Your task to perform on an android device: add a contact in the contacts app Image 0: 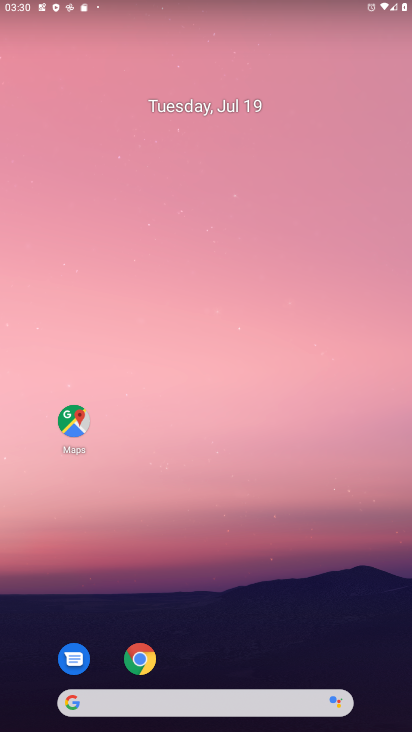
Step 0: press home button
Your task to perform on an android device: add a contact in the contacts app Image 1: 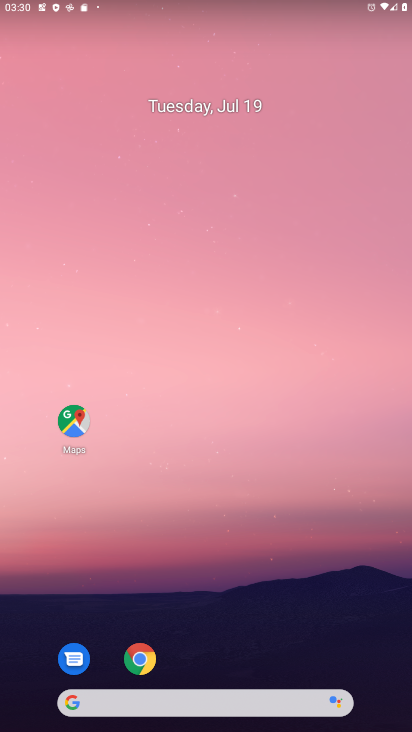
Step 1: drag from (278, 658) to (277, 78)
Your task to perform on an android device: add a contact in the contacts app Image 2: 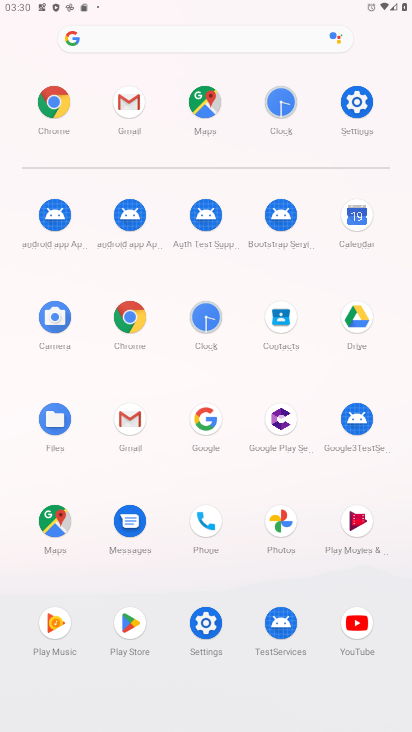
Step 2: click (276, 336)
Your task to perform on an android device: add a contact in the contacts app Image 3: 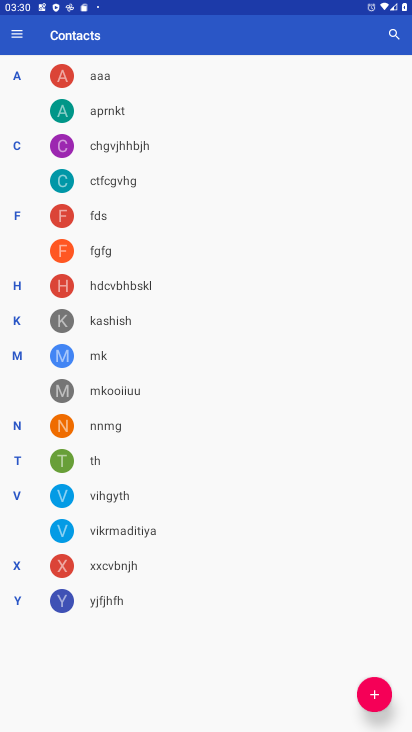
Step 3: click (368, 689)
Your task to perform on an android device: add a contact in the contacts app Image 4: 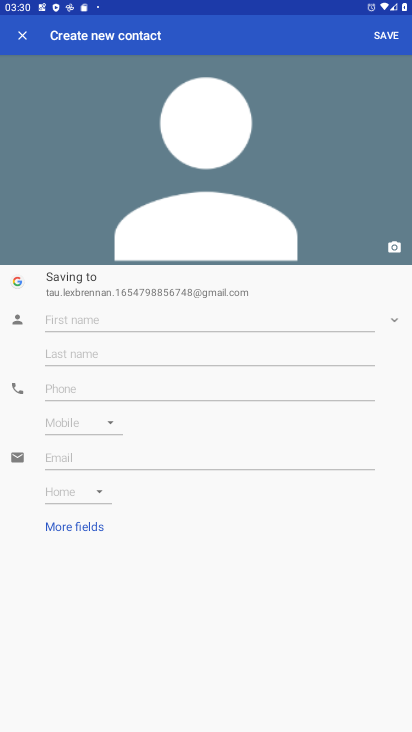
Step 4: click (117, 314)
Your task to perform on an android device: add a contact in the contacts app Image 5: 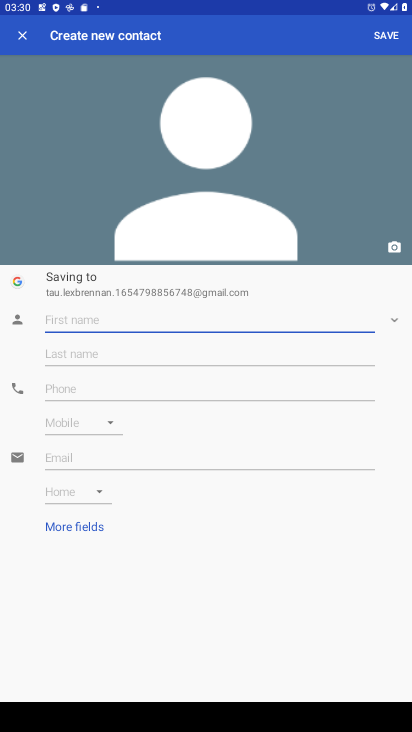
Step 5: type "hhhggfffccgyyyuuiijjkjhgfdcvgtfftgvhgvj"
Your task to perform on an android device: add a contact in the contacts app Image 6: 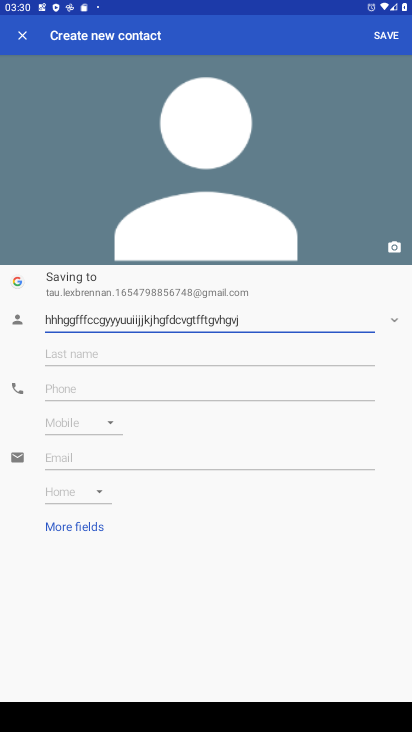
Step 6: click (75, 381)
Your task to perform on an android device: add a contact in the contacts app Image 7: 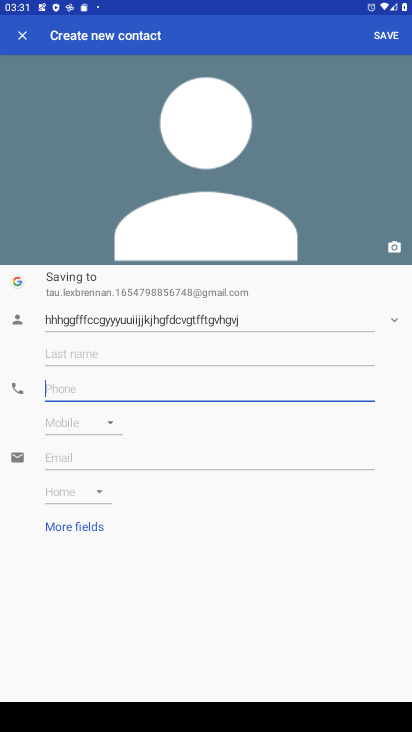
Step 7: type "867098123"
Your task to perform on an android device: add a contact in the contacts app Image 8: 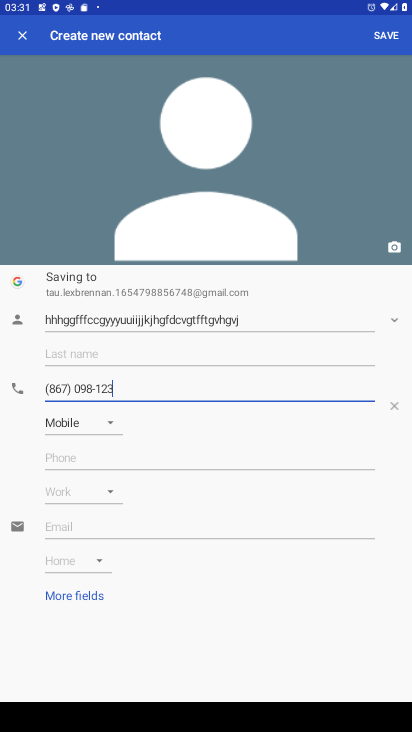
Step 8: click (398, 30)
Your task to perform on an android device: add a contact in the contacts app Image 9: 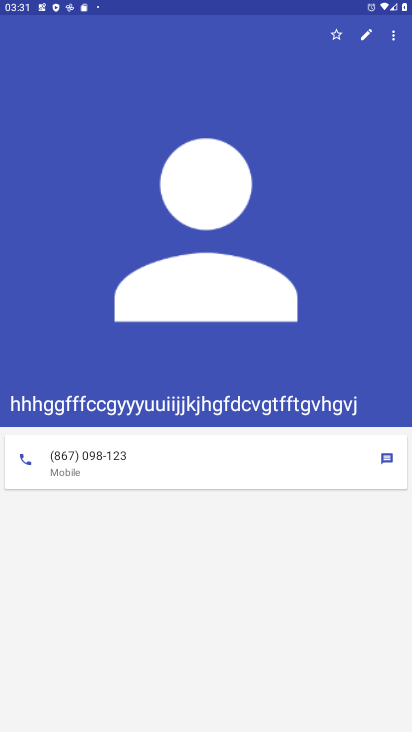
Step 9: task complete